Your task to perform on an android device: open app "Booking.com: Hotels and more" Image 0: 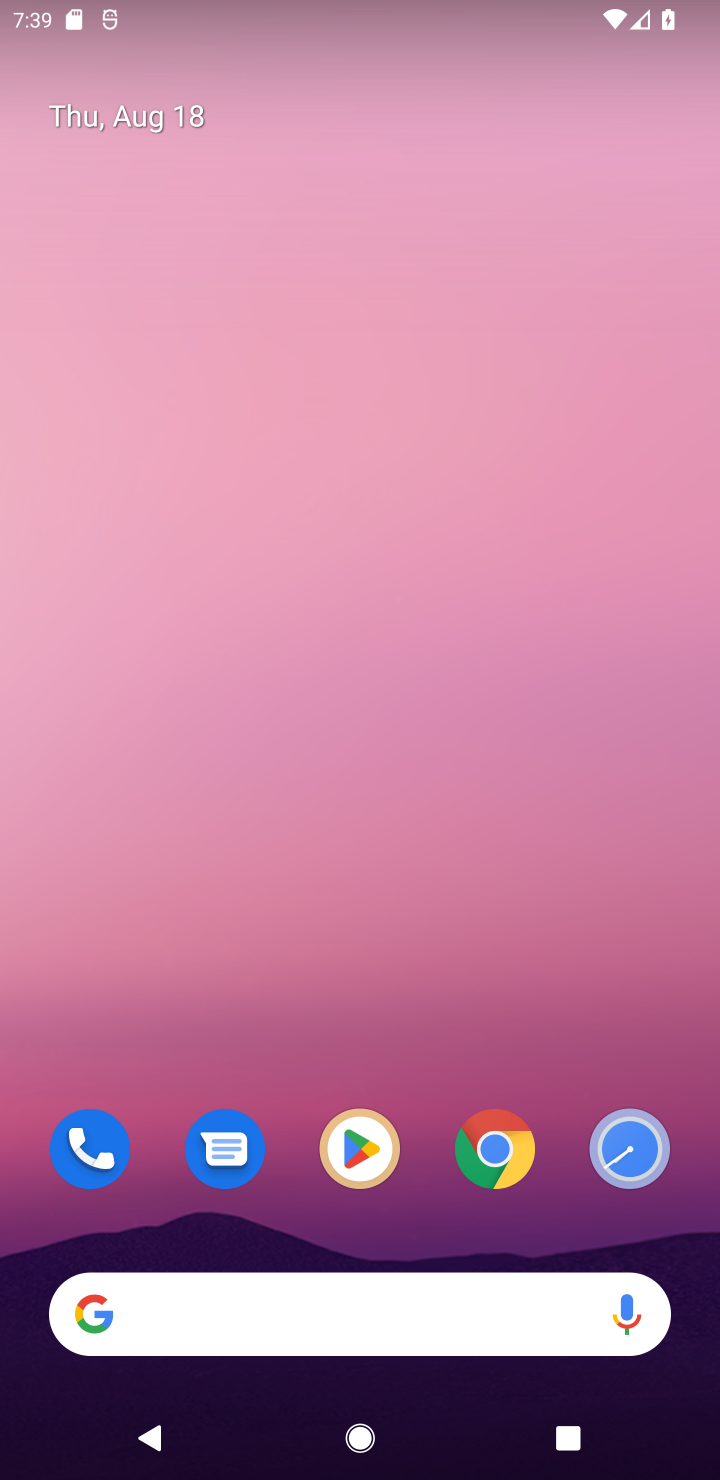
Step 0: drag from (682, 988) to (458, 44)
Your task to perform on an android device: open app "Booking.com: Hotels and more" Image 1: 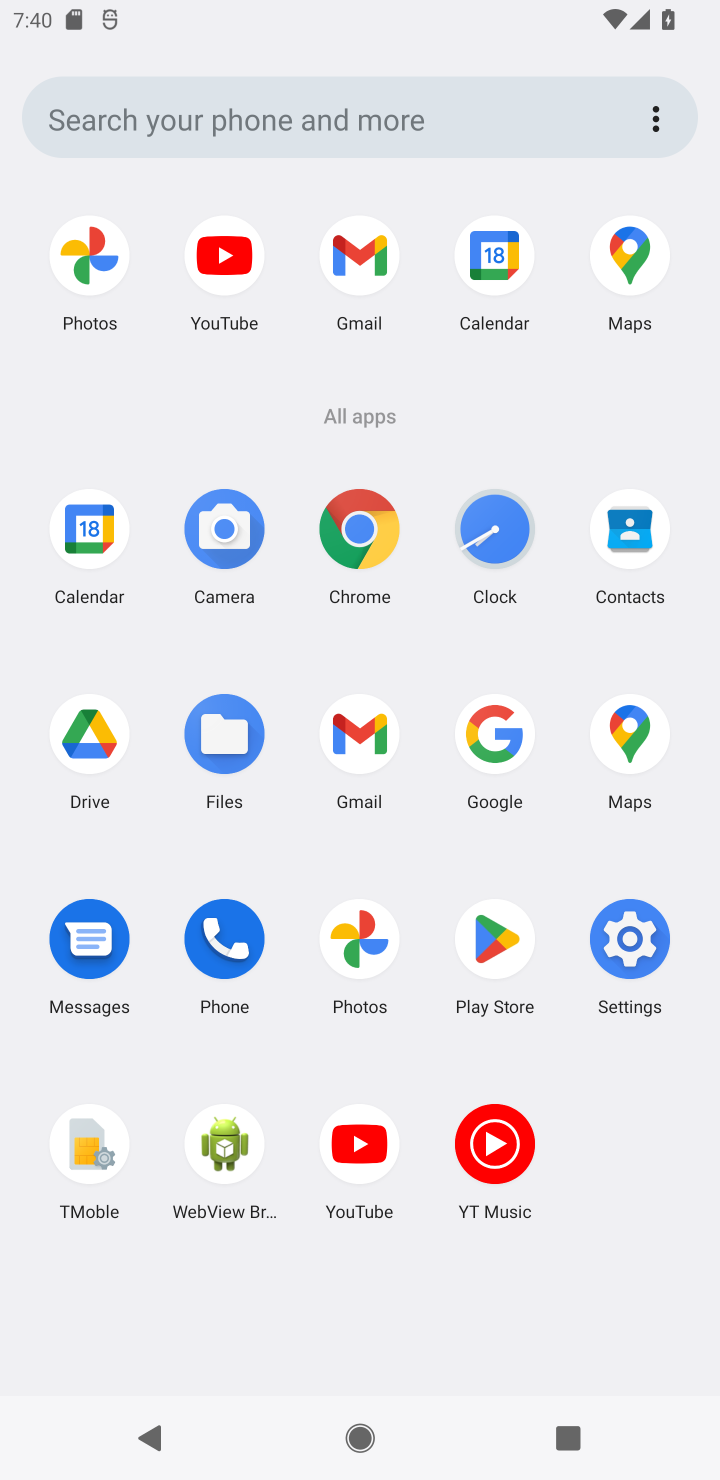
Step 1: click (494, 954)
Your task to perform on an android device: open app "Booking.com: Hotels and more" Image 2: 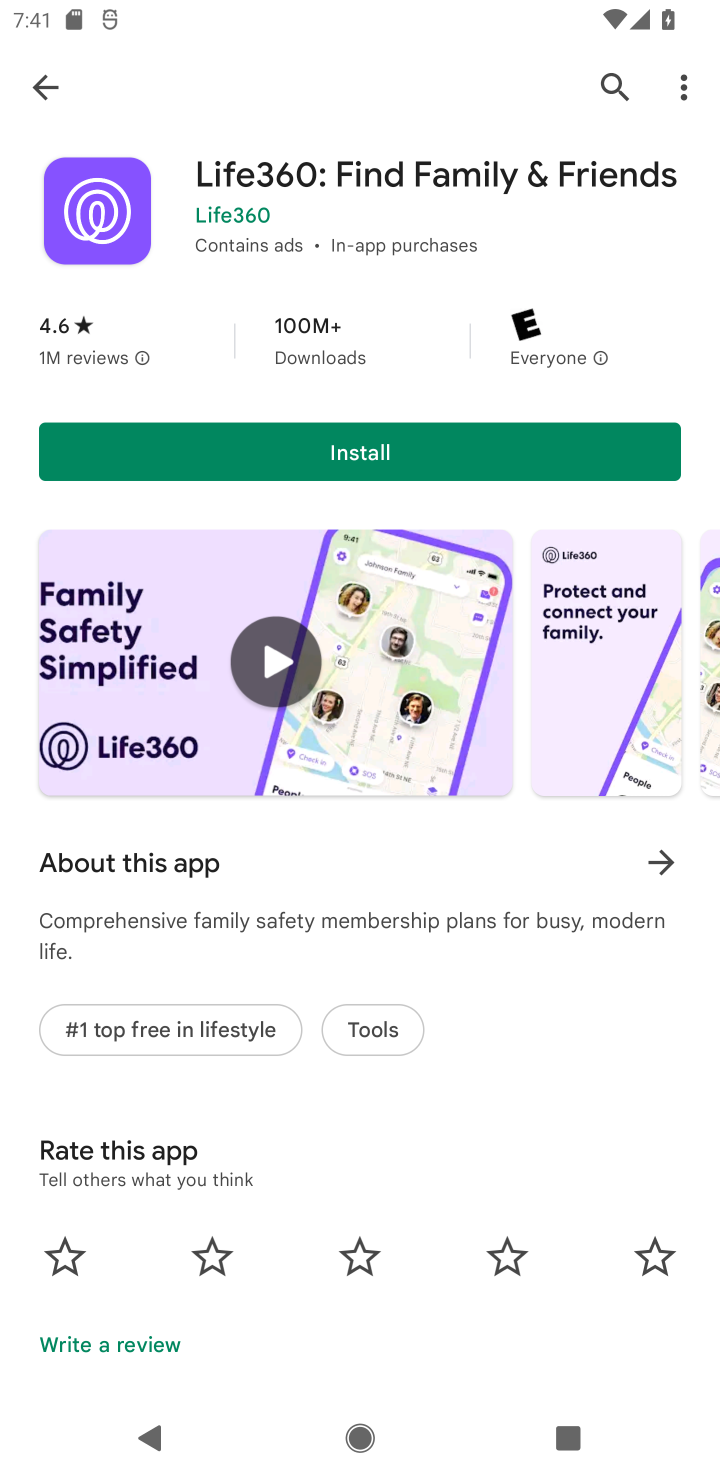
Step 2: press back button
Your task to perform on an android device: open app "Booking.com: Hotels and more" Image 3: 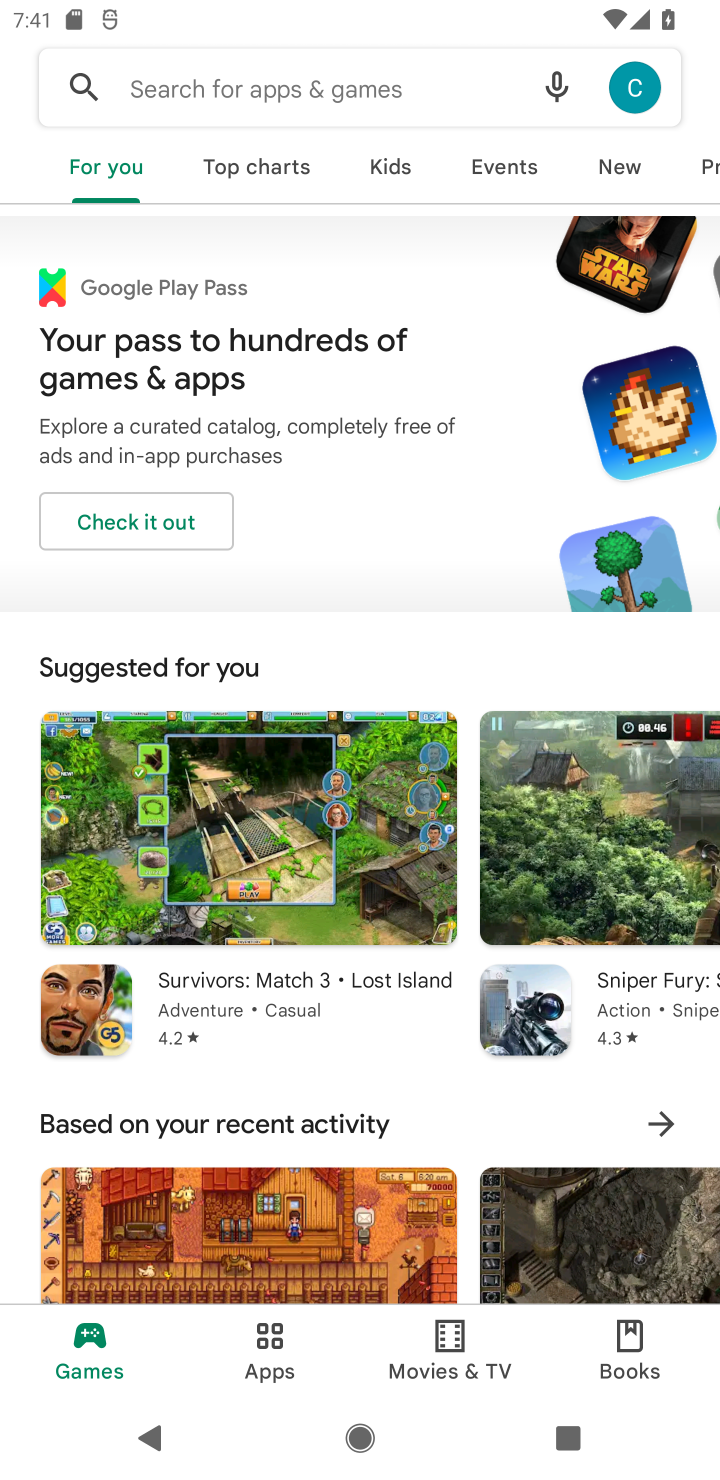
Step 3: click (225, 87)
Your task to perform on an android device: open app "Booking.com: Hotels and more" Image 4: 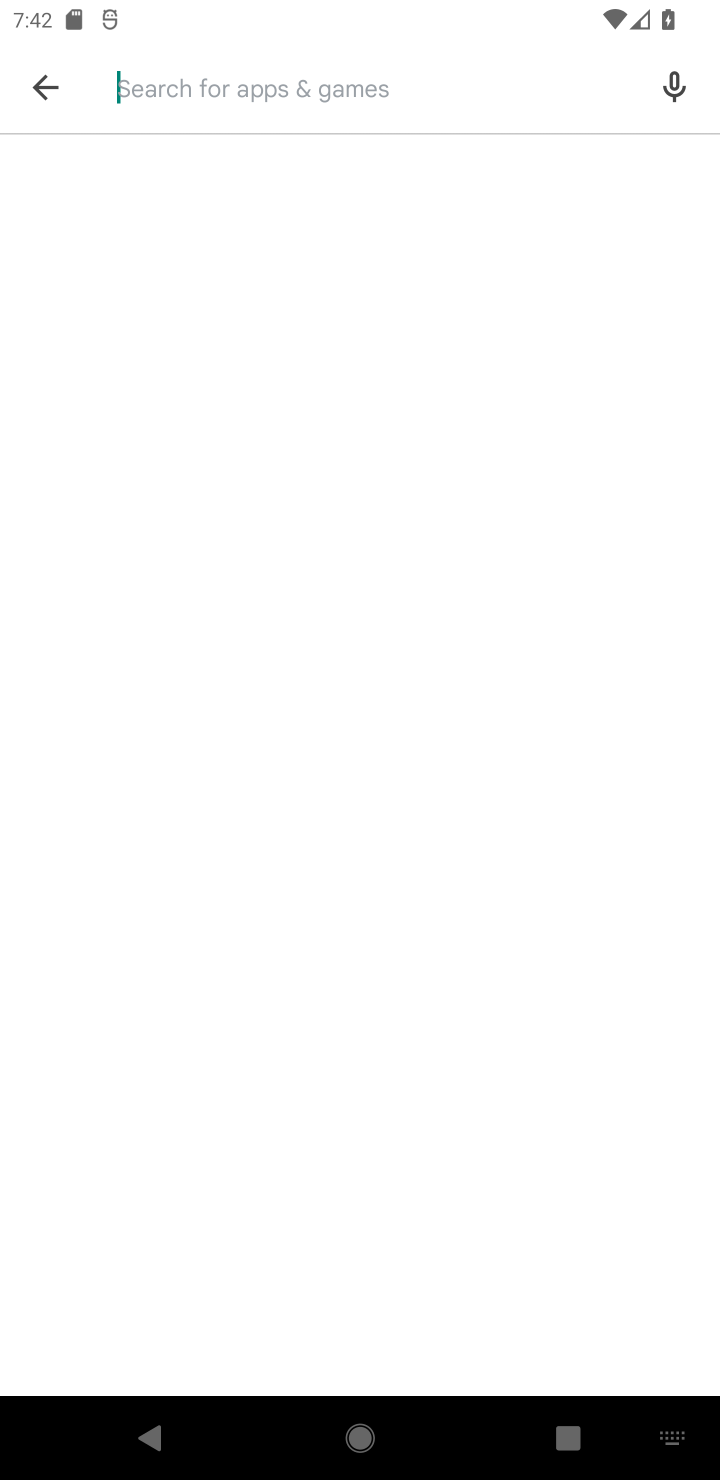
Step 4: type "Booking.com: Hotels and more"
Your task to perform on an android device: open app "Booking.com: Hotels and more" Image 5: 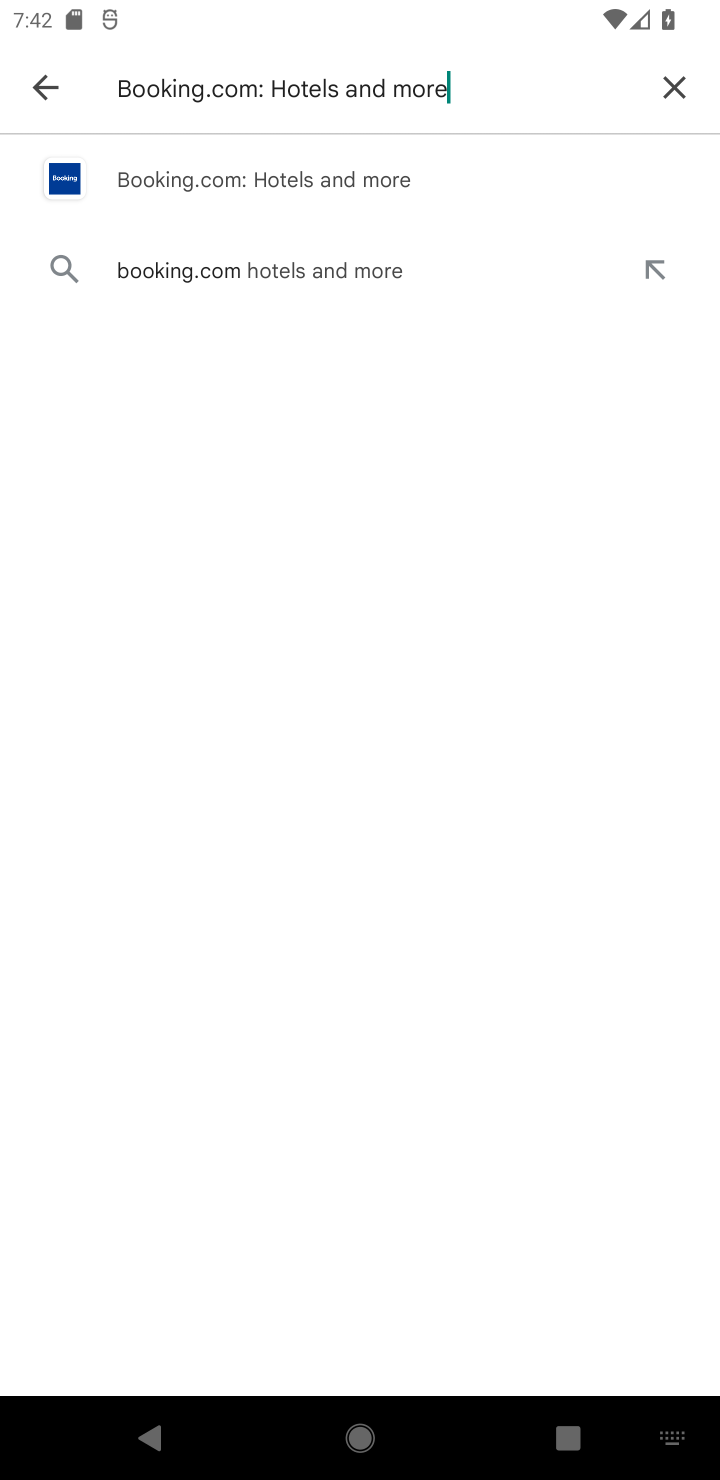
Step 5: click (220, 193)
Your task to perform on an android device: open app "Booking.com: Hotels and more" Image 6: 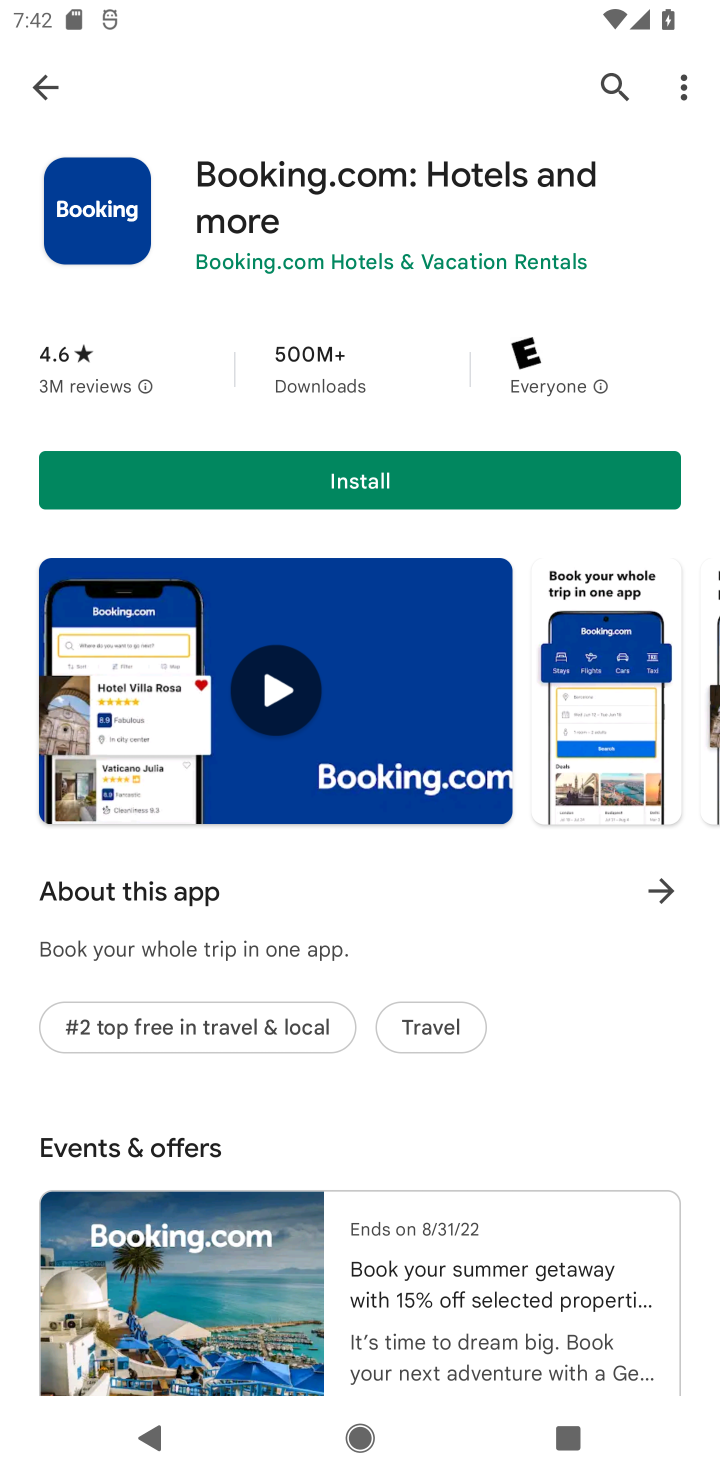
Step 6: task complete